Your task to perform on an android device: Open calendar and show me the fourth week of next month Image 0: 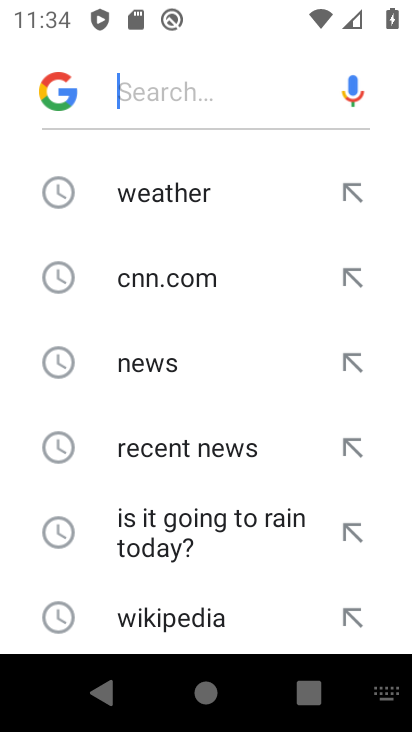
Step 0: press home button
Your task to perform on an android device: Open calendar and show me the fourth week of next month Image 1: 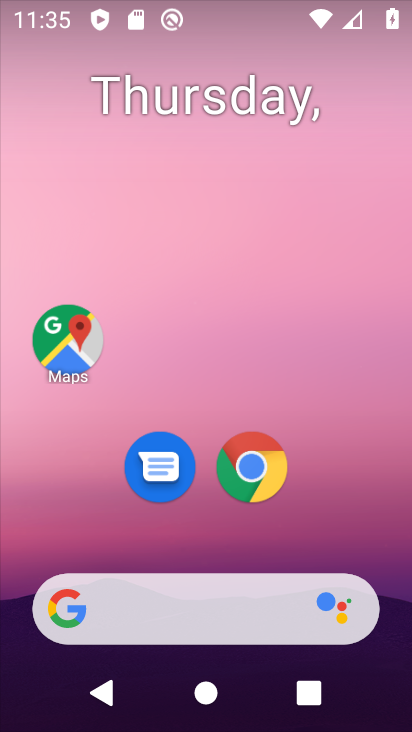
Step 1: drag from (356, 559) to (263, 6)
Your task to perform on an android device: Open calendar and show me the fourth week of next month Image 2: 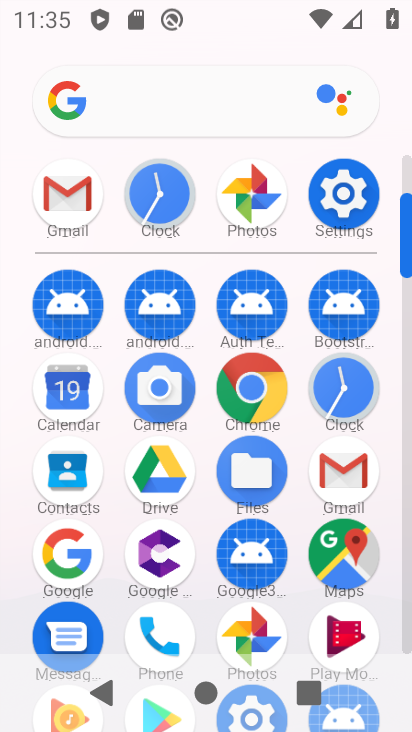
Step 2: click (56, 400)
Your task to perform on an android device: Open calendar and show me the fourth week of next month Image 3: 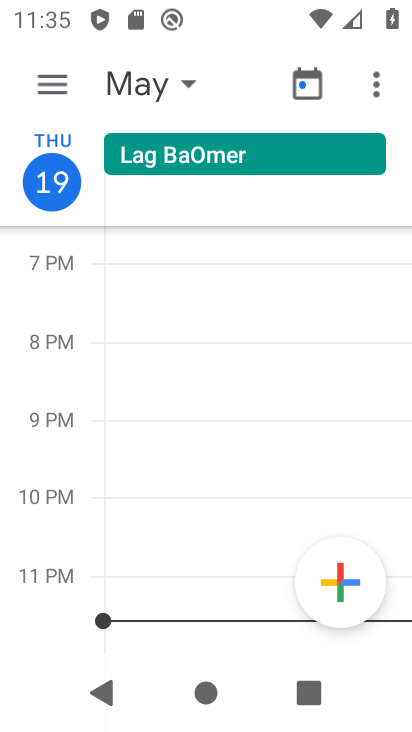
Step 3: click (44, 86)
Your task to perform on an android device: Open calendar and show me the fourth week of next month Image 4: 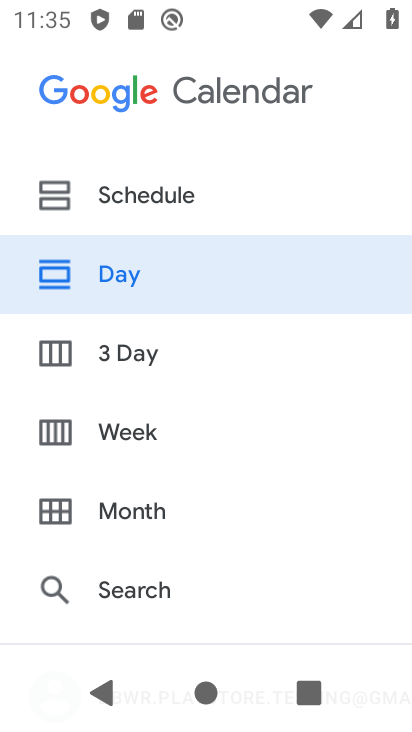
Step 4: click (63, 441)
Your task to perform on an android device: Open calendar and show me the fourth week of next month Image 5: 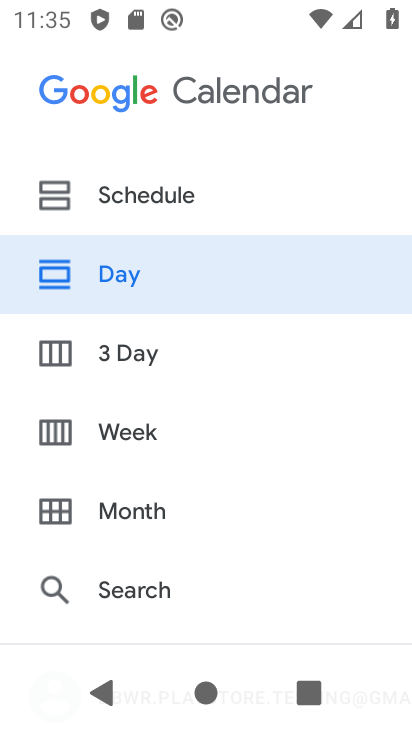
Step 5: click (55, 430)
Your task to perform on an android device: Open calendar and show me the fourth week of next month Image 6: 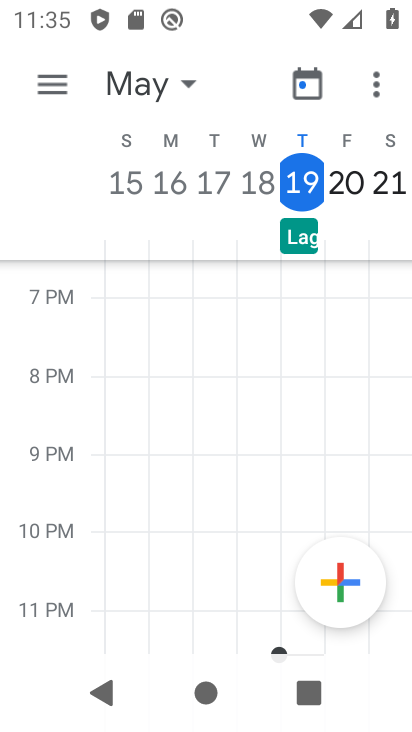
Step 6: click (185, 84)
Your task to perform on an android device: Open calendar and show me the fourth week of next month Image 7: 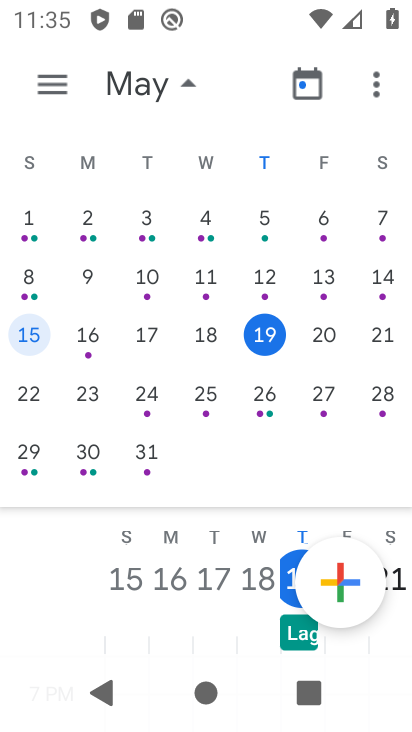
Step 7: drag from (351, 301) to (54, 234)
Your task to perform on an android device: Open calendar and show me the fourth week of next month Image 8: 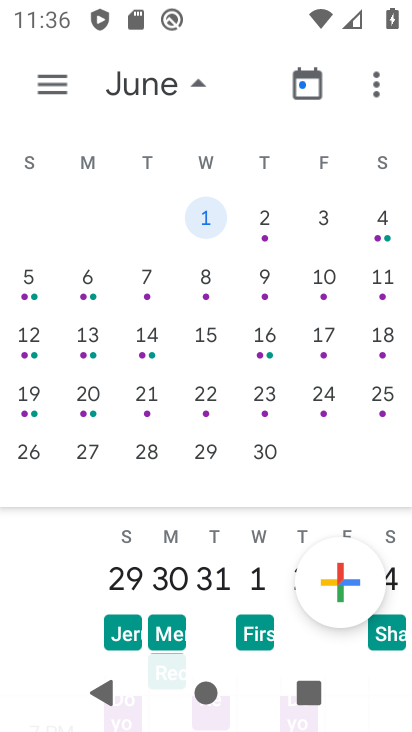
Step 8: click (56, 87)
Your task to perform on an android device: Open calendar and show me the fourth week of next month Image 9: 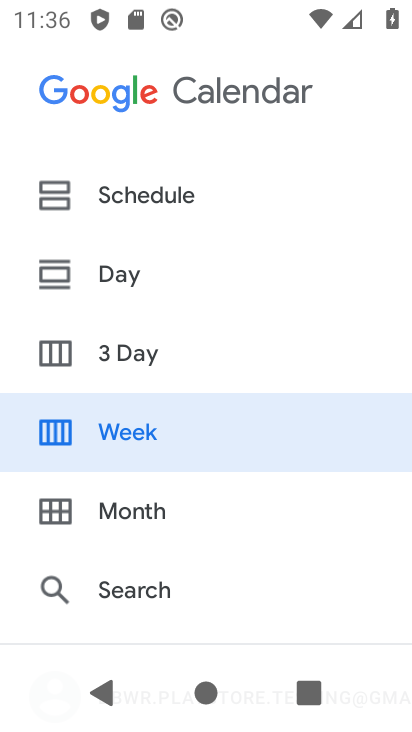
Step 9: click (106, 434)
Your task to perform on an android device: Open calendar and show me the fourth week of next month Image 10: 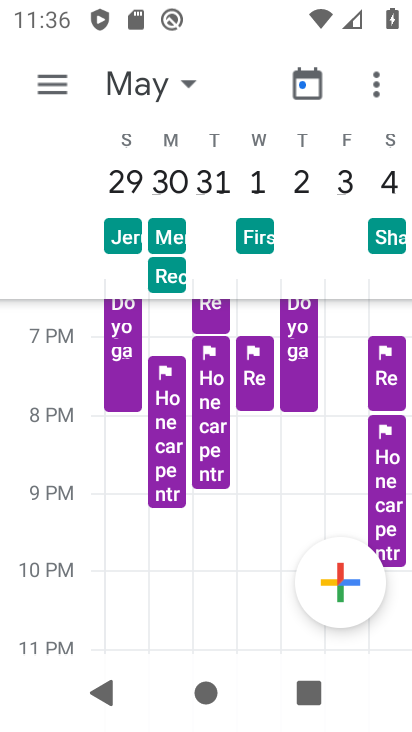
Step 10: task complete